Your task to perform on an android device: open device folders in google photos Image 0: 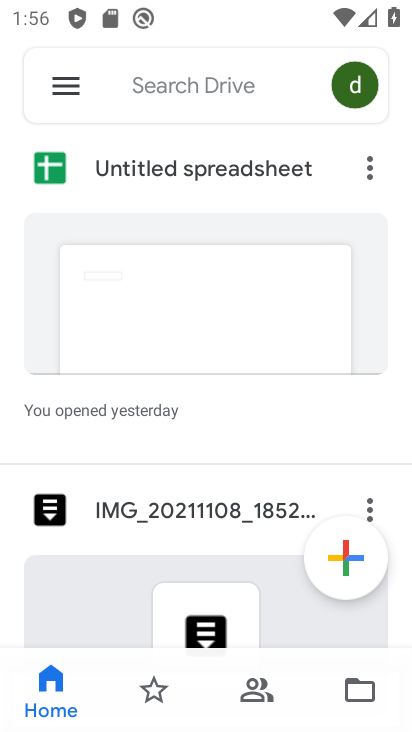
Step 0: press home button
Your task to perform on an android device: open device folders in google photos Image 1: 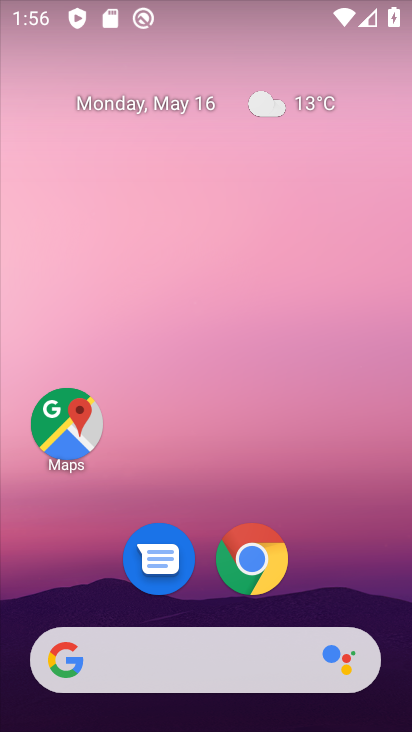
Step 1: drag from (196, 601) to (178, 290)
Your task to perform on an android device: open device folders in google photos Image 2: 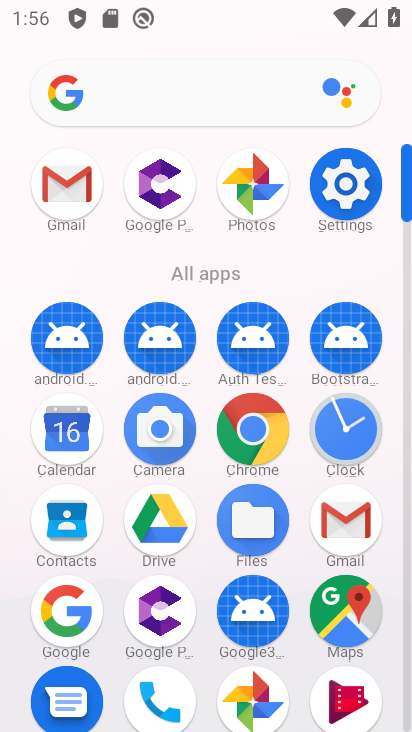
Step 2: click (253, 186)
Your task to perform on an android device: open device folders in google photos Image 3: 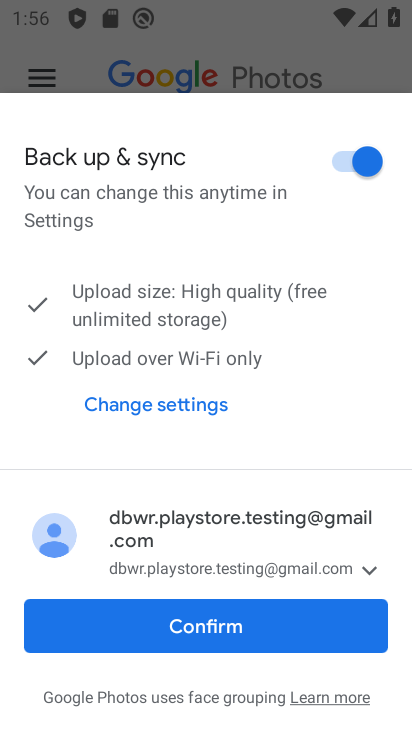
Step 3: click (233, 637)
Your task to perform on an android device: open device folders in google photos Image 4: 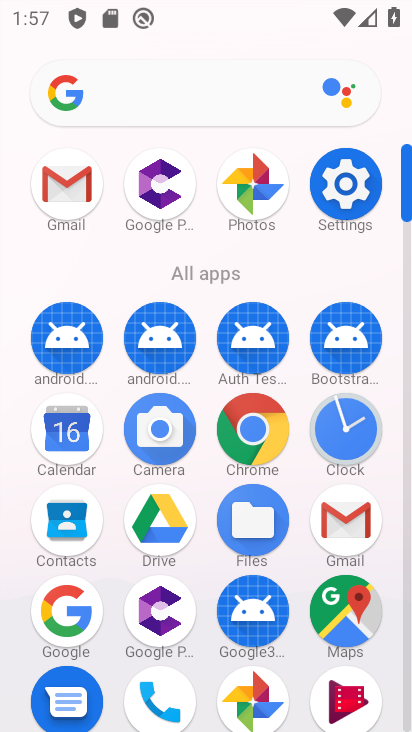
Step 4: click (257, 181)
Your task to perform on an android device: open device folders in google photos Image 5: 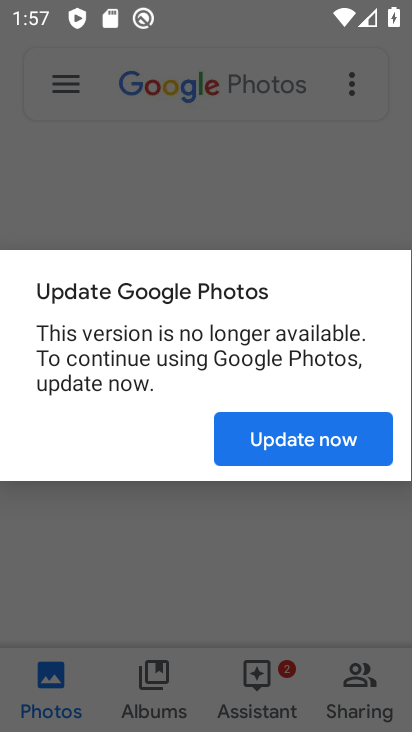
Step 5: click (265, 433)
Your task to perform on an android device: open device folders in google photos Image 6: 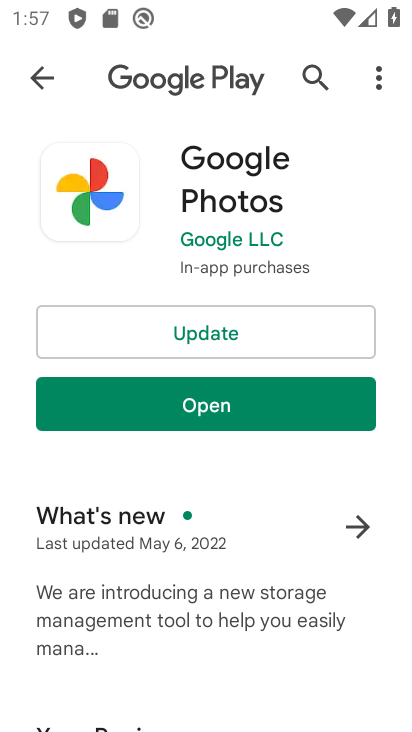
Step 6: click (227, 349)
Your task to perform on an android device: open device folders in google photos Image 7: 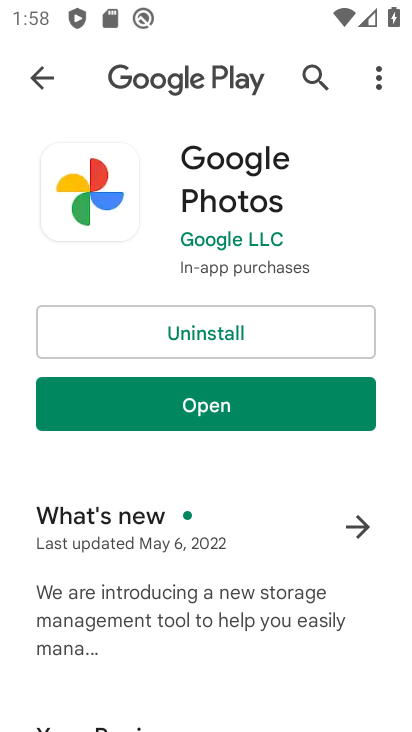
Step 7: click (269, 408)
Your task to perform on an android device: open device folders in google photos Image 8: 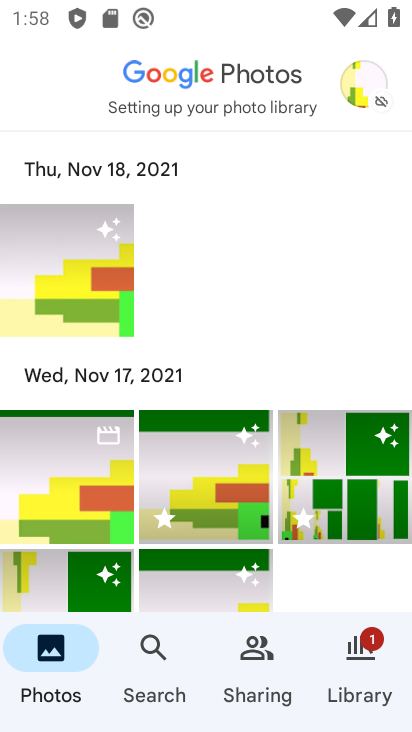
Step 8: click (368, 76)
Your task to perform on an android device: open device folders in google photos Image 9: 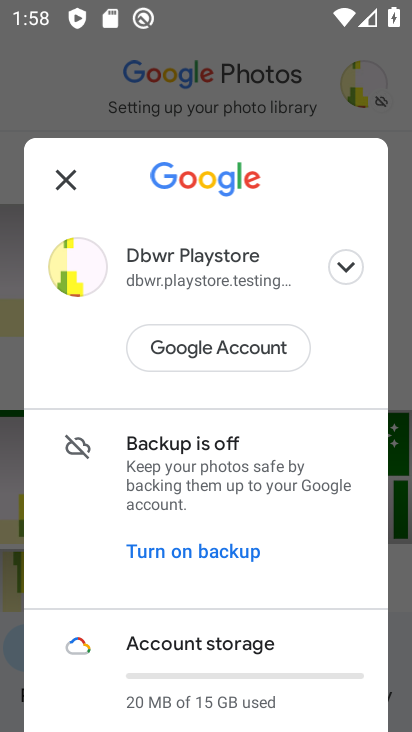
Step 9: click (72, 184)
Your task to perform on an android device: open device folders in google photos Image 10: 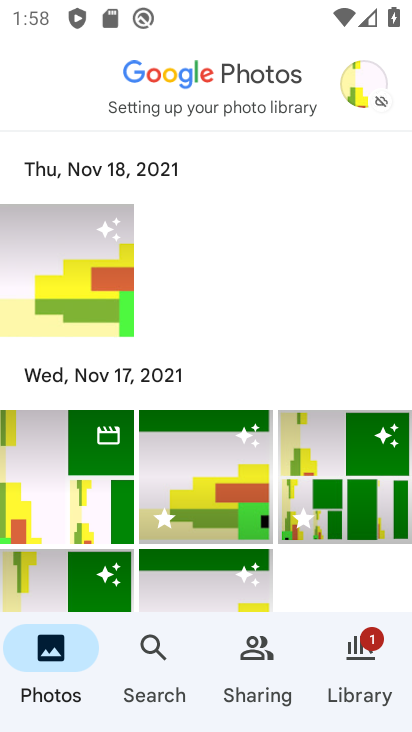
Step 10: click (166, 644)
Your task to perform on an android device: open device folders in google photos Image 11: 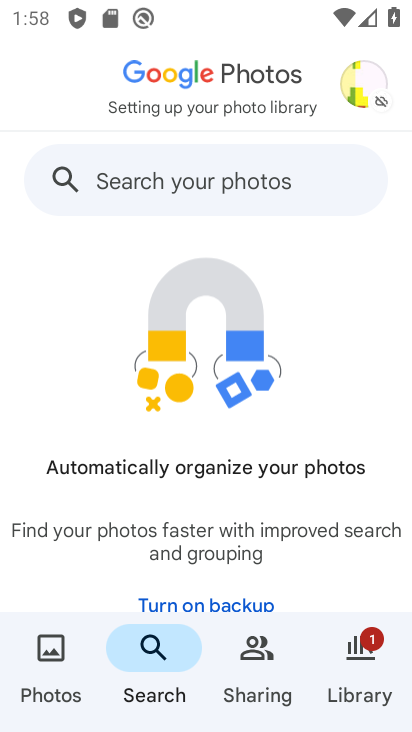
Step 11: click (161, 188)
Your task to perform on an android device: open device folders in google photos Image 12: 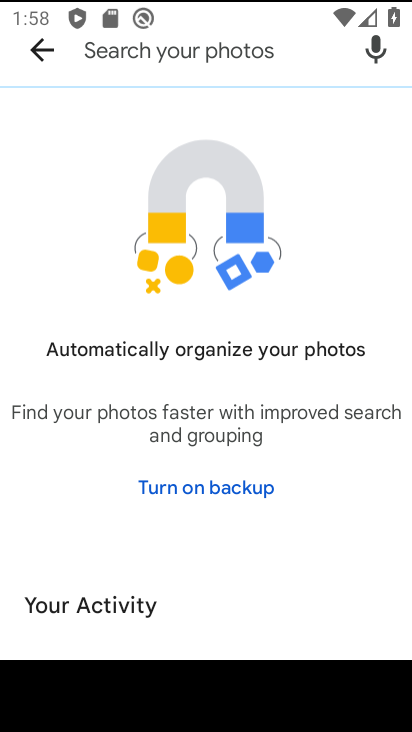
Step 12: type "device folder"
Your task to perform on an android device: open device folders in google photos Image 13: 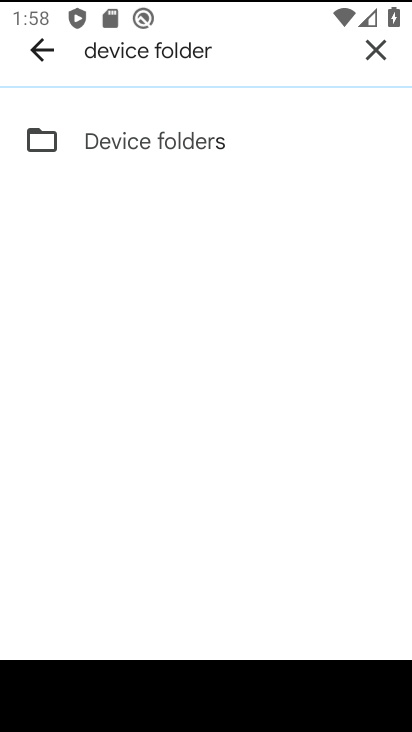
Step 13: click (92, 150)
Your task to perform on an android device: open device folders in google photos Image 14: 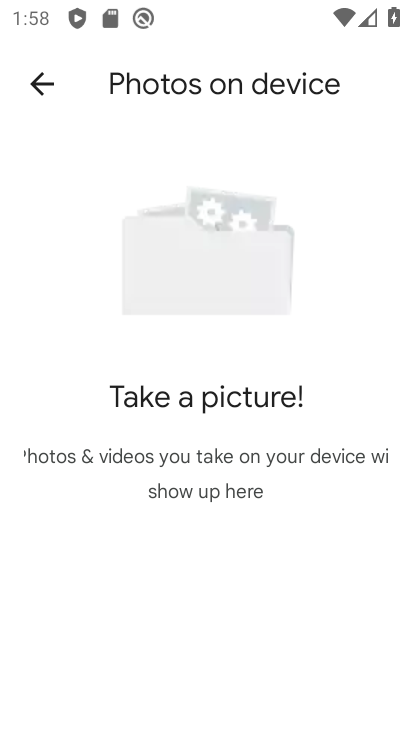
Step 14: task complete